Your task to perform on an android device: toggle translation in the chrome app Image 0: 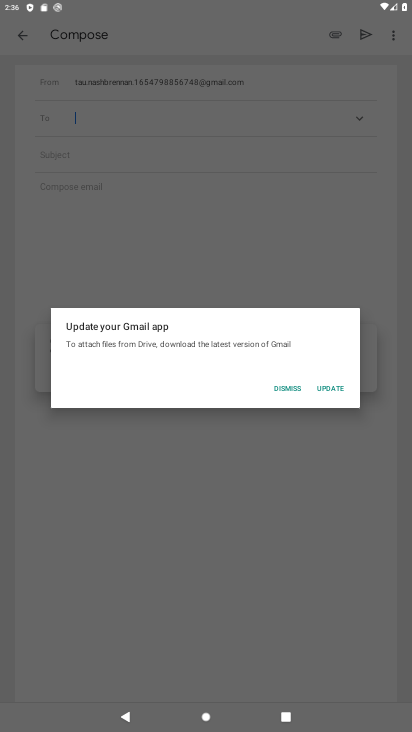
Step 0: press home button
Your task to perform on an android device: toggle translation in the chrome app Image 1: 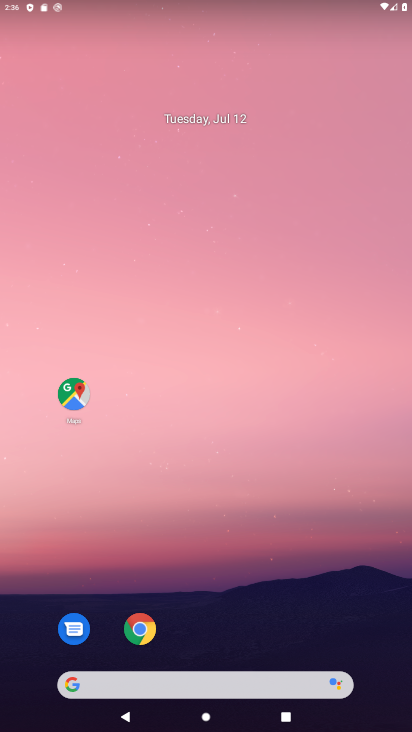
Step 1: click (141, 630)
Your task to perform on an android device: toggle translation in the chrome app Image 2: 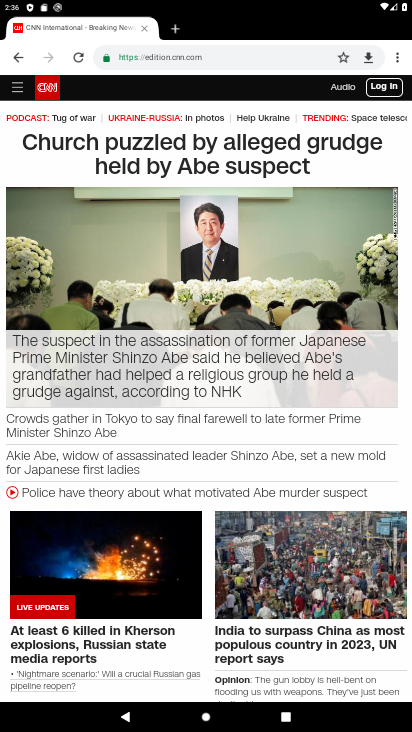
Step 2: click (397, 58)
Your task to perform on an android device: toggle translation in the chrome app Image 3: 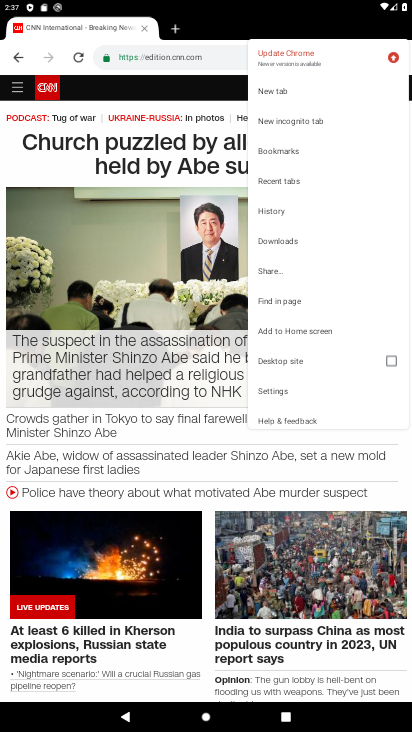
Step 3: click (283, 392)
Your task to perform on an android device: toggle translation in the chrome app Image 4: 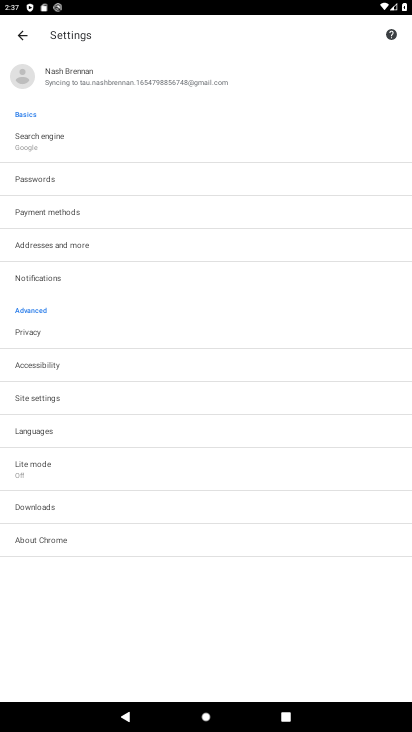
Step 4: click (45, 435)
Your task to perform on an android device: toggle translation in the chrome app Image 5: 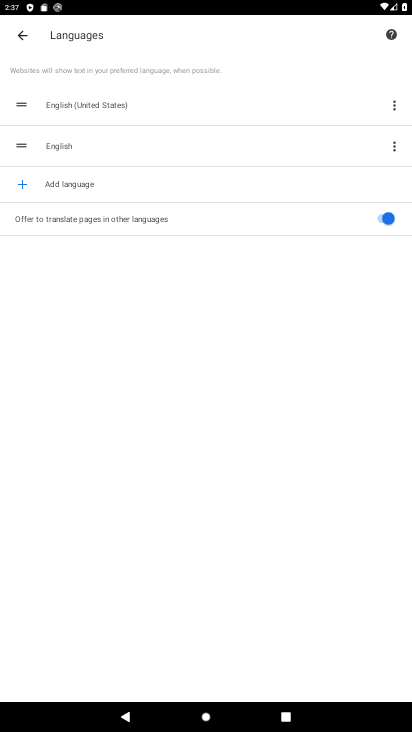
Step 5: click (389, 221)
Your task to perform on an android device: toggle translation in the chrome app Image 6: 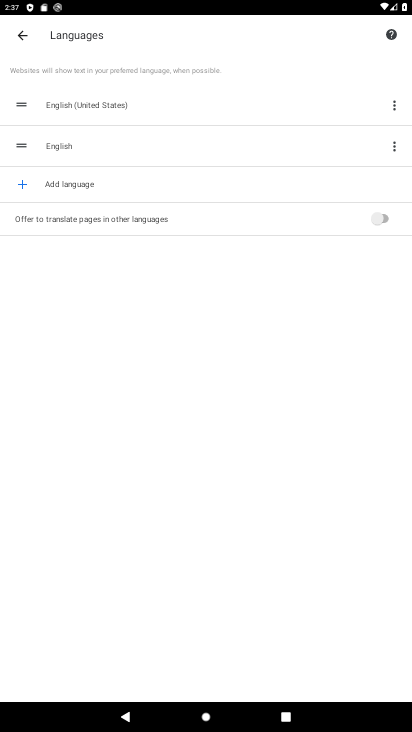
Step 6: task complete